Your task to perform on an android device: check battery use Image 0: 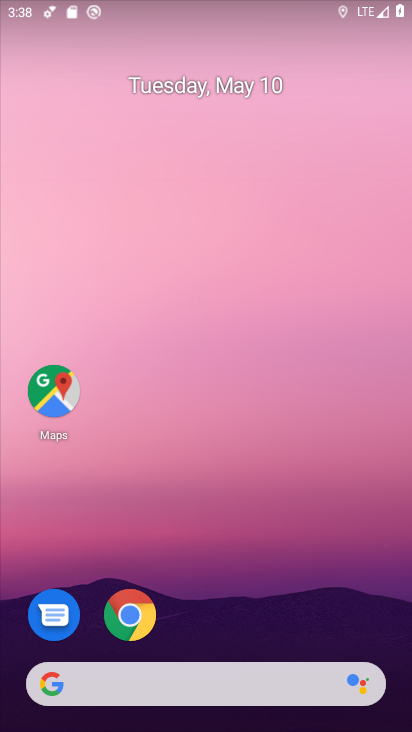
Step 0: drag from (267, 656) to (259, 44)
Your task to perform on an android device: check battery use Image 1: 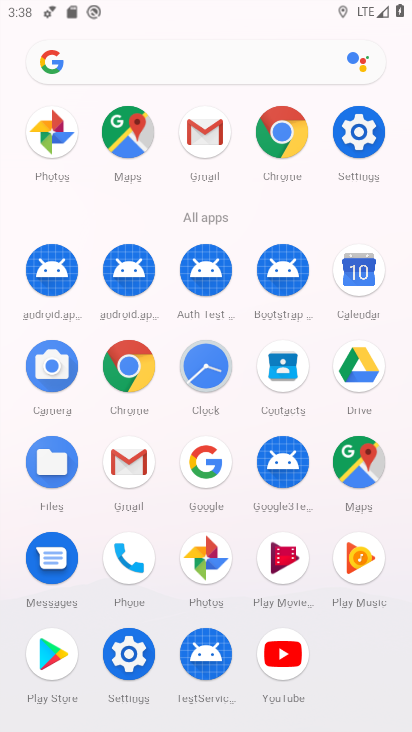
Step 1: click (362, 134)
Your task to perform on an android device: check battery use Image 2: 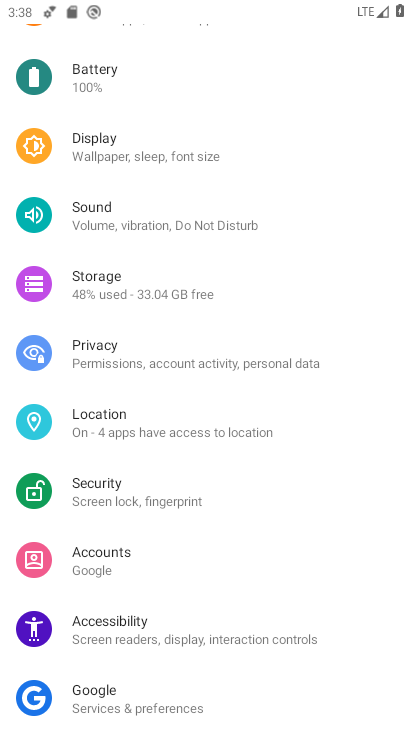
Step 2: click (82, 85)
Your task to perform on an android device: check battery use Image 3: 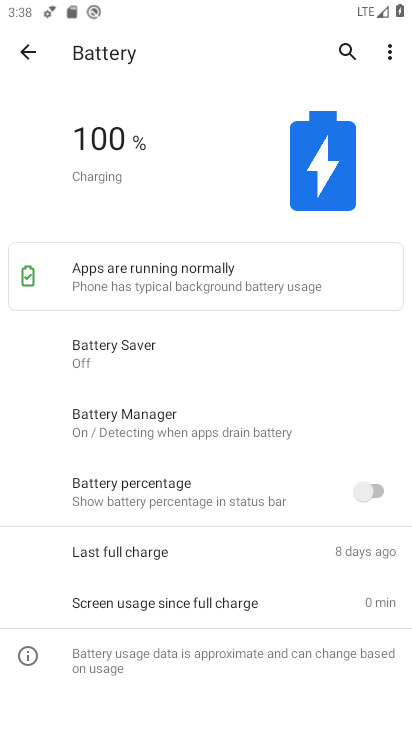
Step 3: task complete